Your task to perform on an android device: turn on airplane mode Image 0: 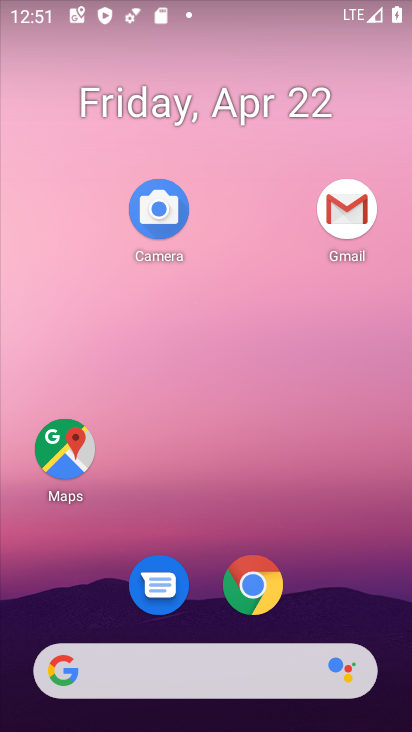
Step 0: drag from (324, 568) to (313, 142)
Your task to perform on an android device: turn on airplane mode Image 1: 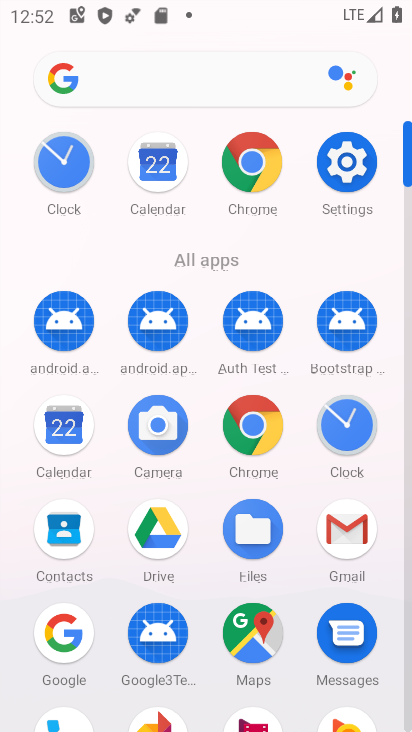
Step 1: click (347, 163)
Your task to perform on an android device: turn on airplane mode Image 2: 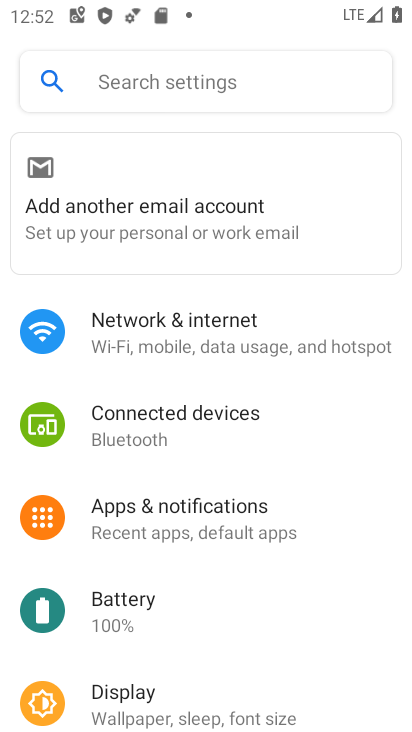
Step 2: click (291, 335)
Your task to perform on an android device: turn on airplane mode Image 3: 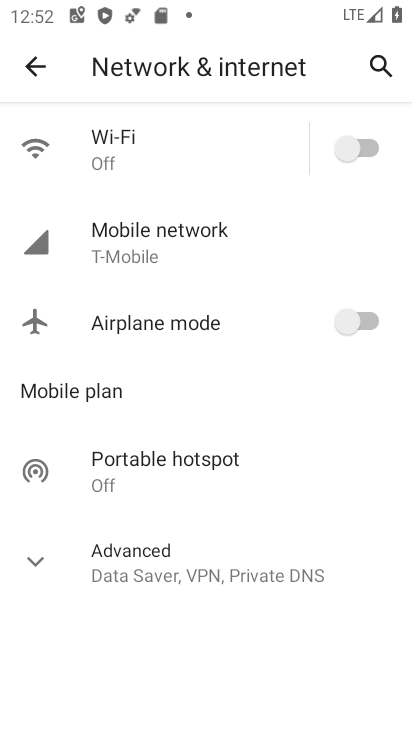
Step 3: click (367, 319)
Your task to perform on an android device: turn on airplane mode Image 4: 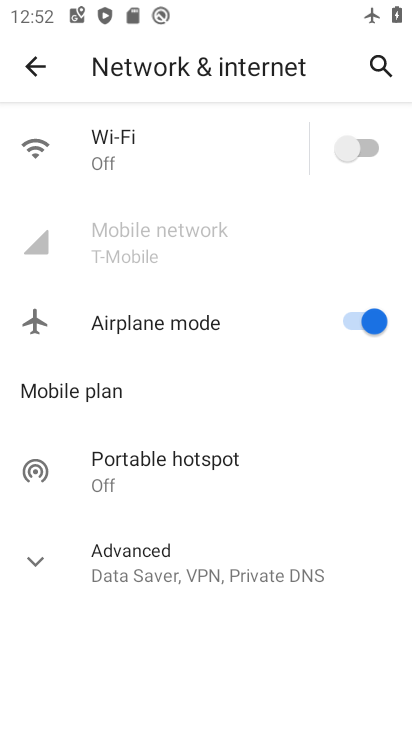
Step 4: task complete